Your task to perform on an android device: When is my next appointment? Image 0: 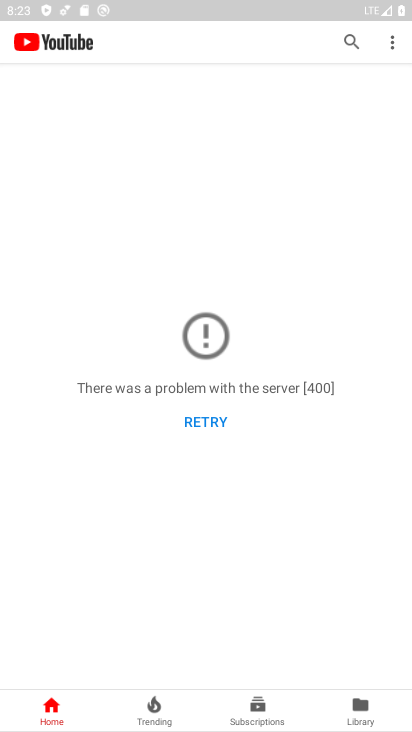
Step 0: press home button
Your task to perform on an android device: When is my next appointment? Image 1: 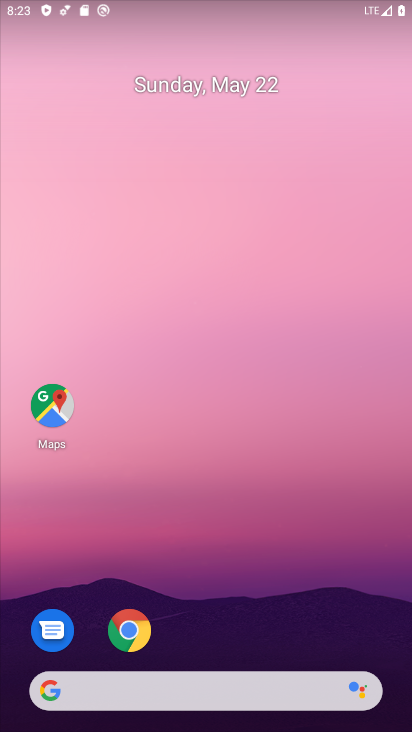
Step 1: drag from (166, 687) to (337, 76)
Your task to perform on an android device: When is my next appointment? Image 2: 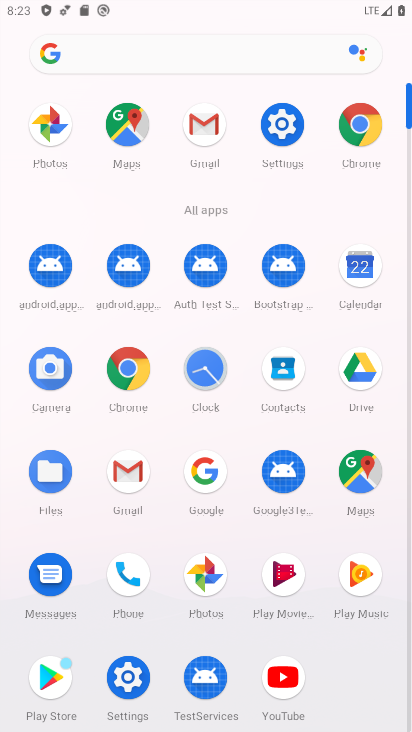
Step 2: click (358, 275)
Your task to perform on an android device: When is my next appointment? Image 3: 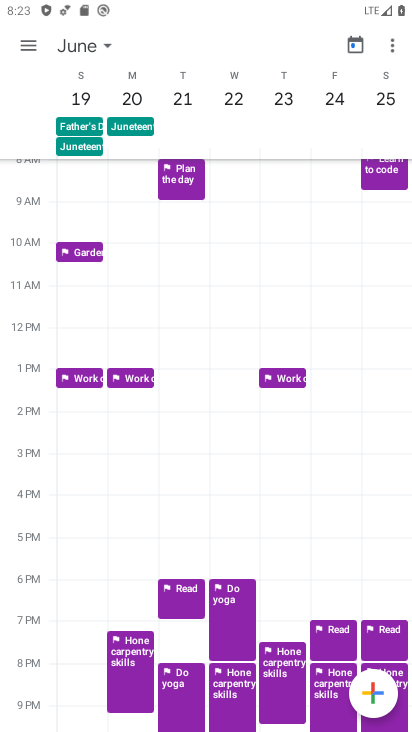
Step 3: click (72, 46)
Your task to perform on an android device: When is my next appointment? Image 4: 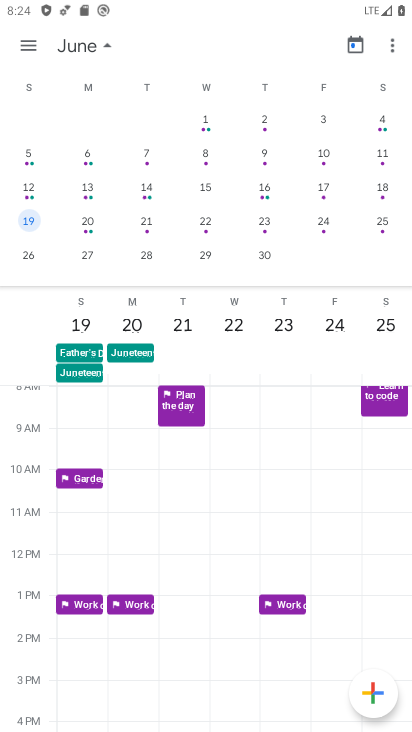
Step 4: drag from (75, 195) to (403, 234)
Your task to perform on an android device: When is my next appointment? Image 5: 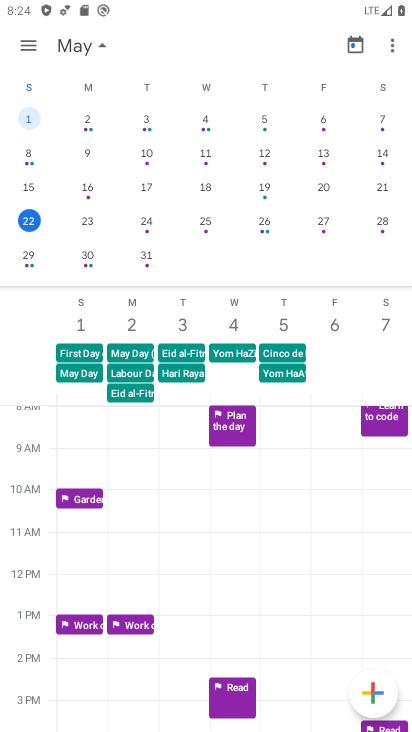
Step 5: click (35, 220)
Your task to perform on an android device: When is my next appointment? Image 6: 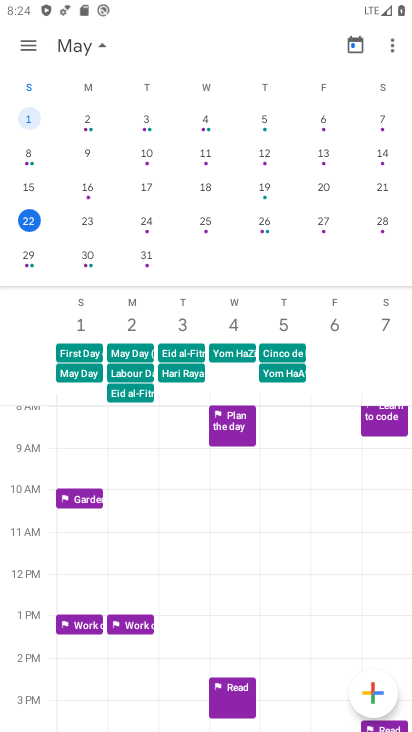
Step 6: click (27, 221)
Your task to perform on an android device: When is my next appointment? Image 7: 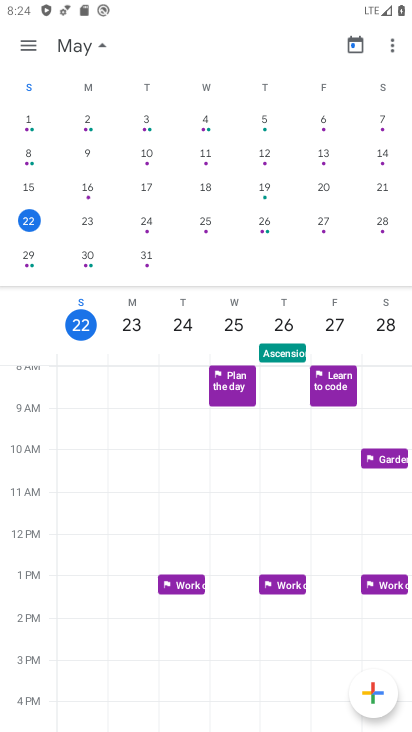
Step 7: click (31, 46)
Your task to perform on an android device: When is my next appointment? Image 8: 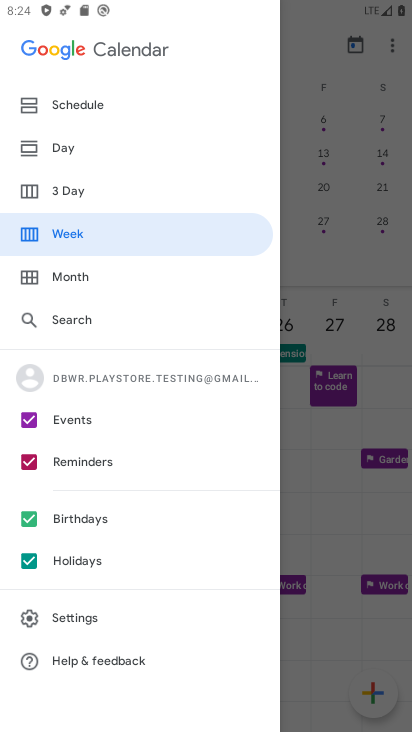
Step 8: click (78, 103)
Your task to perform on an android device: When is my next appointment? Image 9: 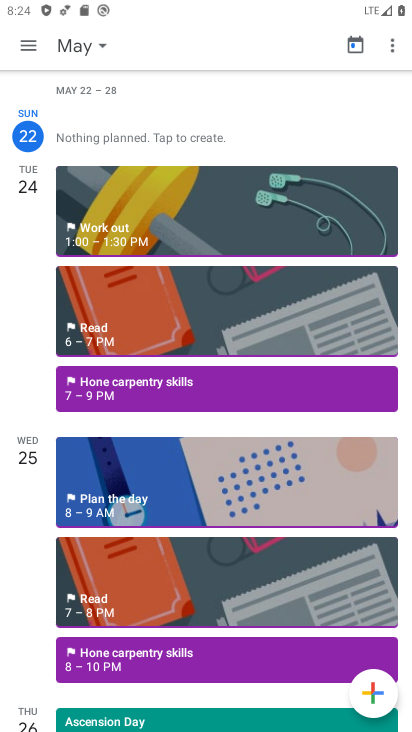
Step 9: click (178, 396)
Your task to perform on an android device: When is my next appointment? Image 10: 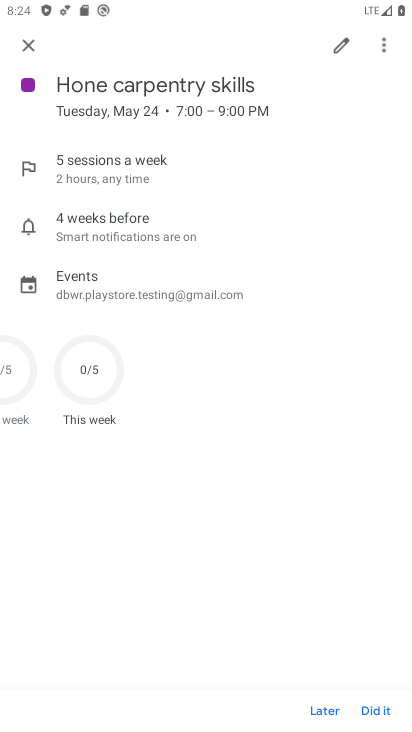
Step 10: task complete